Your task to perform on an android device: toggle airplane mode Image 0: 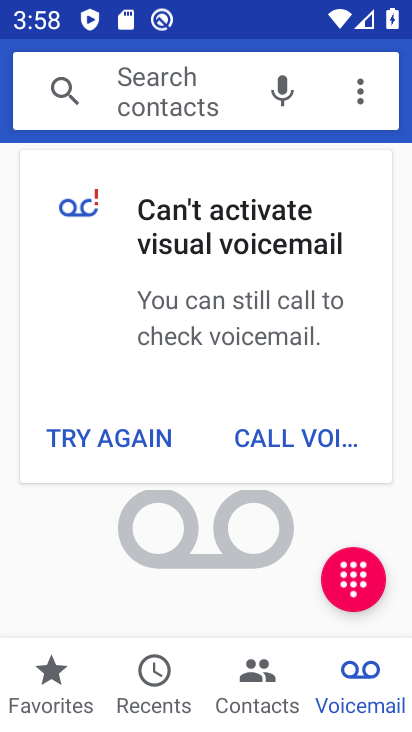
Step 0: press home button
Your task to perform on an android device: toggle airplane mode Image 1: 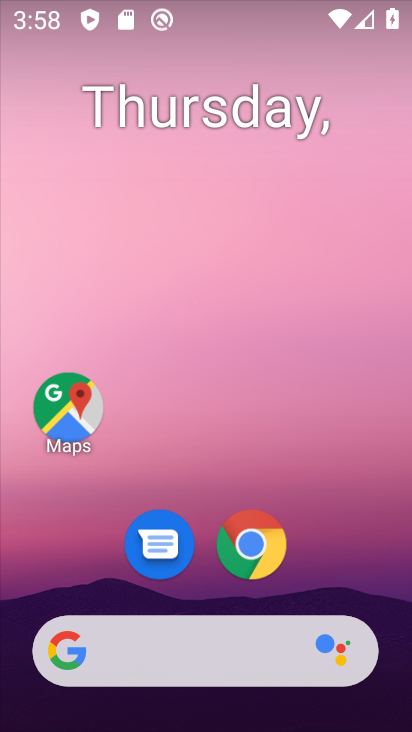
Step 1: drag from (352, 518) to (335, 244)
Your task to perform on an android device: toggle airplane mode Image 2: 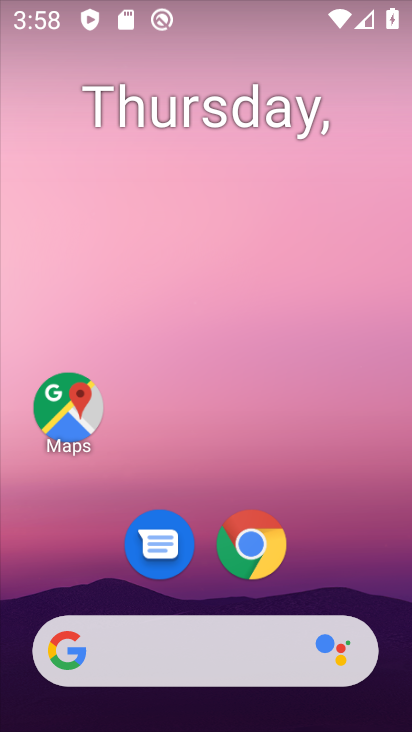
Step 2: drag from (379, 493) to (297, 2)
Your task to perform on an android device: toggle airplane mode Image 3: 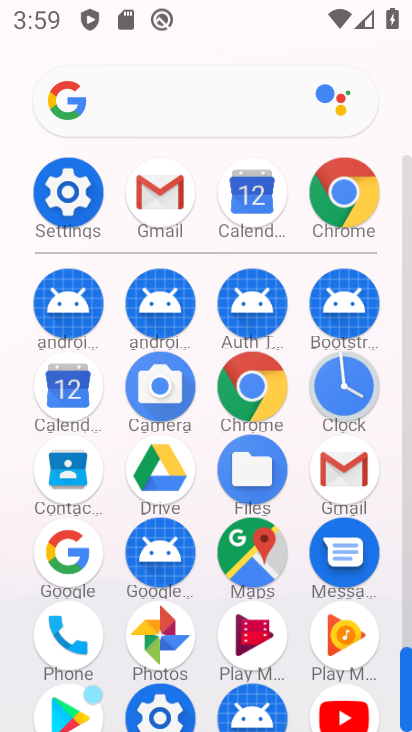
Step 3: click (51, 213)
Your task to perform on an android device: toggle airplane mode Image 4: 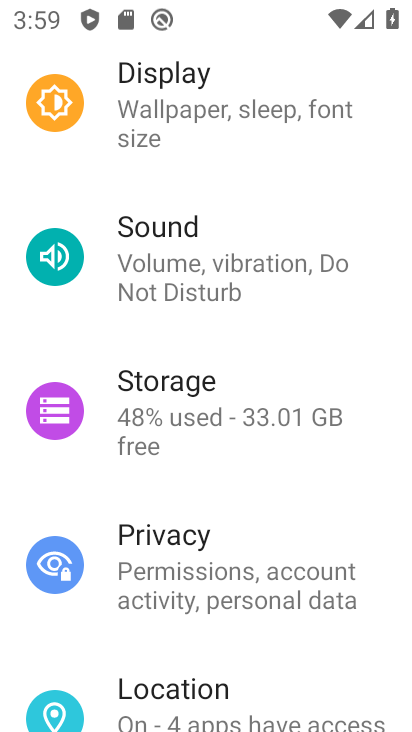
Step 4: drag from (253, 226) to (274, 596)
Your task to perform on an android device: toggle airplane mode Image 5: 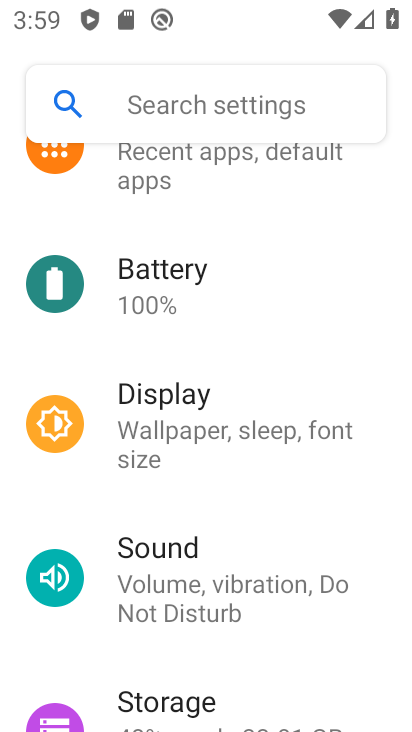
Step 5: drag from (261, 383) to (281, 547)
Your task to perform on an android device: toggle airplane mode Image 6: 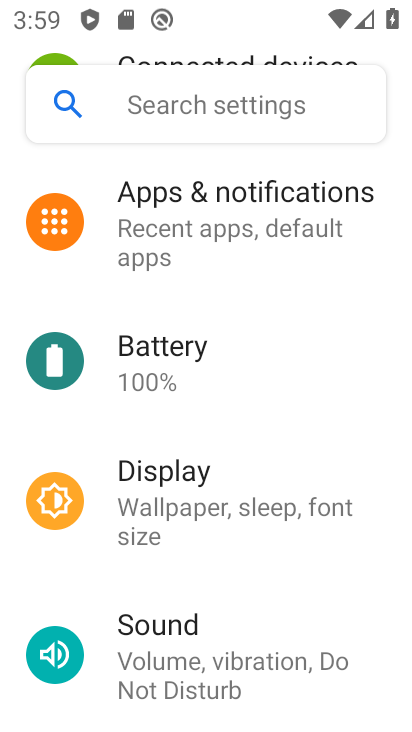
Step 6: drag from (233, 268) to (277, 631)
Your task to perform on an android device: toggle airplane mode Image 7: 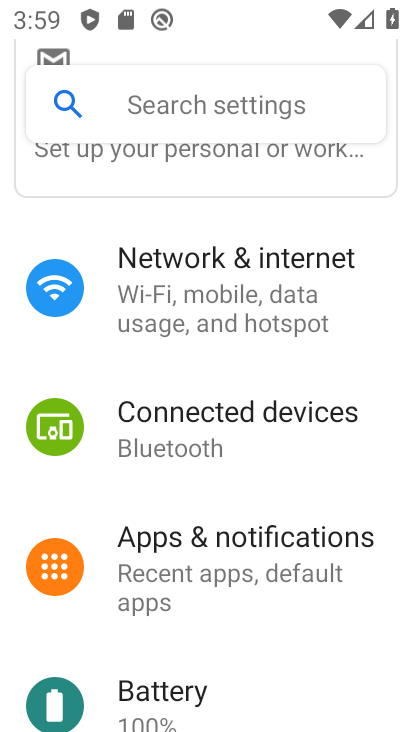
Step 7: click (240, 307)
Your task to perform on an android device: toggle airplane mode Image 8: 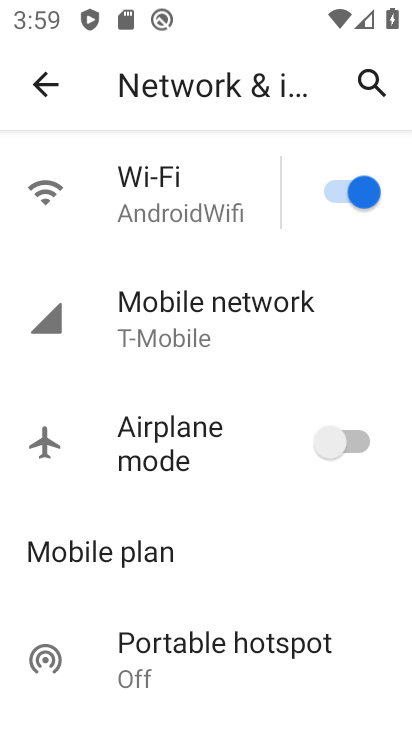
Step 8: click (330, 437)
Your task to perform on an android device: toggle airplane mode Image 9: 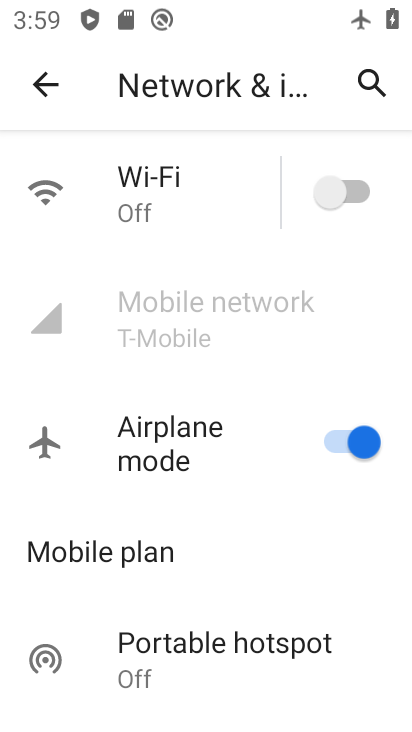
Step 9: task complete